Your task to perform on an android device: turn off translation in the chrome app Image 0: 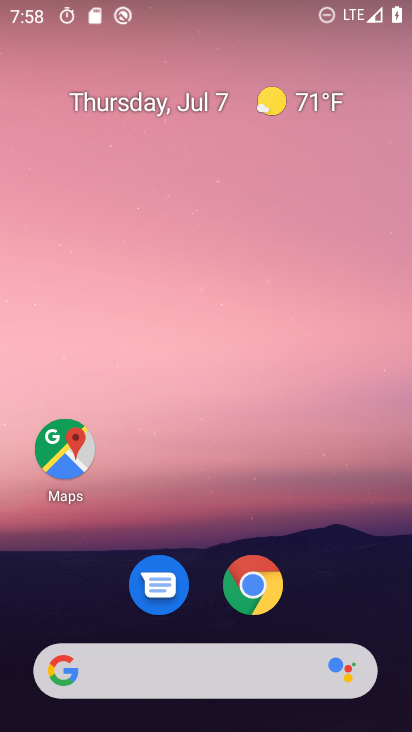
Step 0: click (249, 584)
Your task to perform on an android device: turn off translation in the chrome app Image 1: 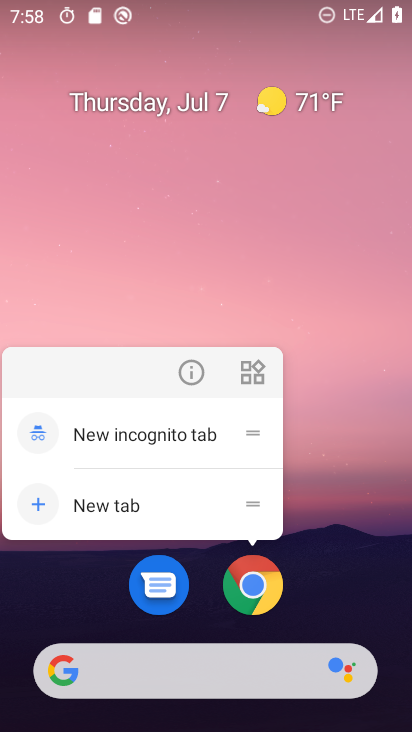
Step 1: click (249, 583)
Your task to perform on an android device: turn off translation in the chrome app Image 2: 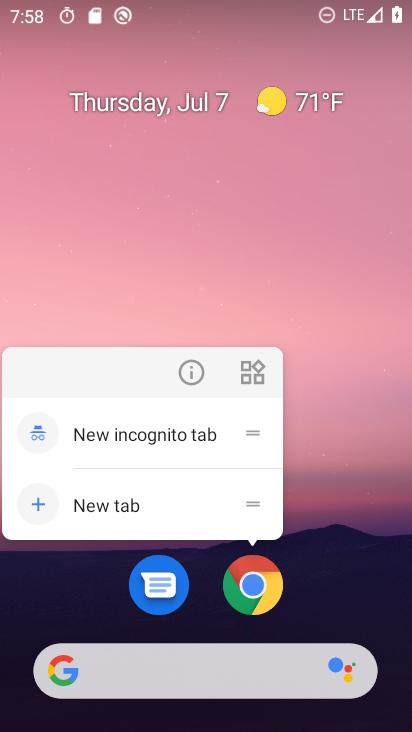
Step 2: click (249, 583)
Your task to perform on an android device: turn off translation in the chrome app Image 3: 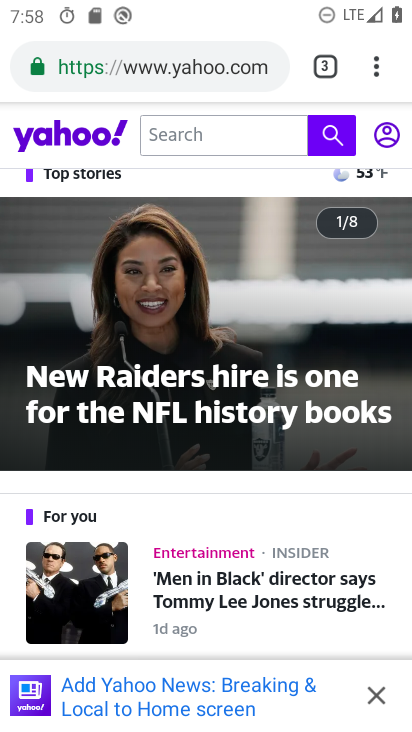
Step 3: drag from (374, 62) to (233, 587)
Your task to perform on an android device: turn off translation in the chrome app Image 4: 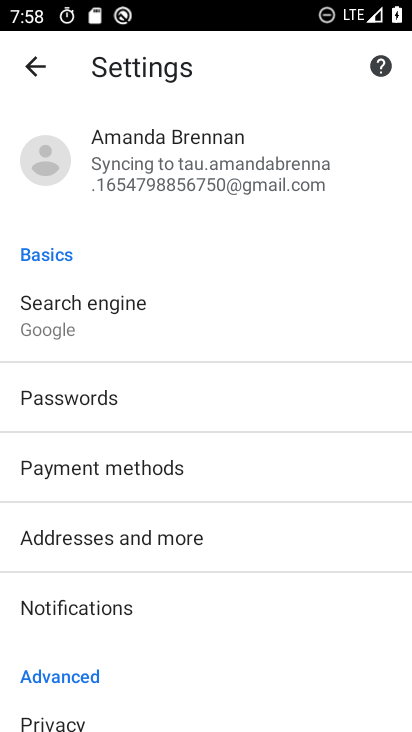
Step 4: drag from (167, 647) to (320, 173)
Your task to perform on an android device: turn off translation in the chrome app Image 5: 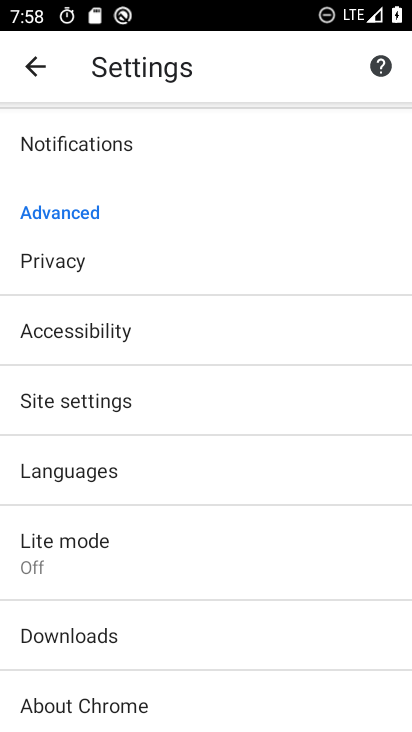
Step 5: click (74, 475)
Your task to perform on an android device: turn off translation in the chrome app Image 6: 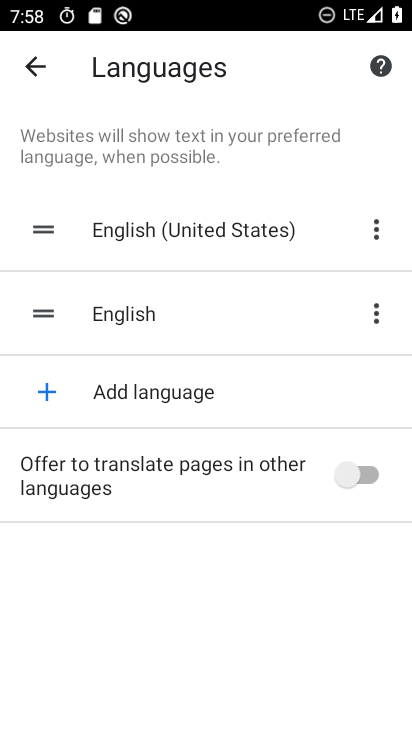
Step 6: task complete